Your task to perform on an android device: set the timer Image 0: 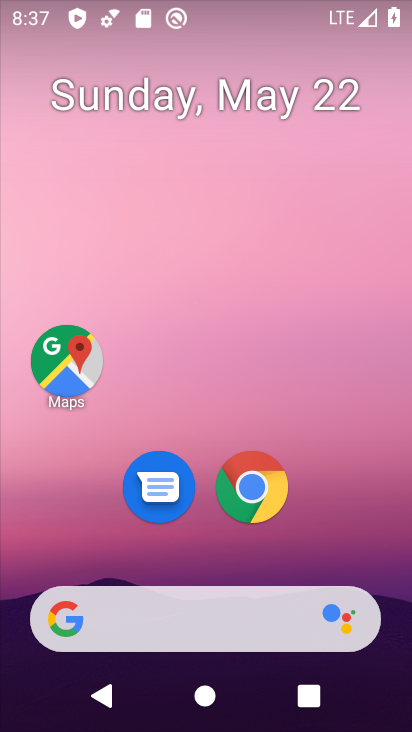
Step 0: drag from (304, 534) to (341, 0)
Your task to perform on an android device: set the timer Image 1: 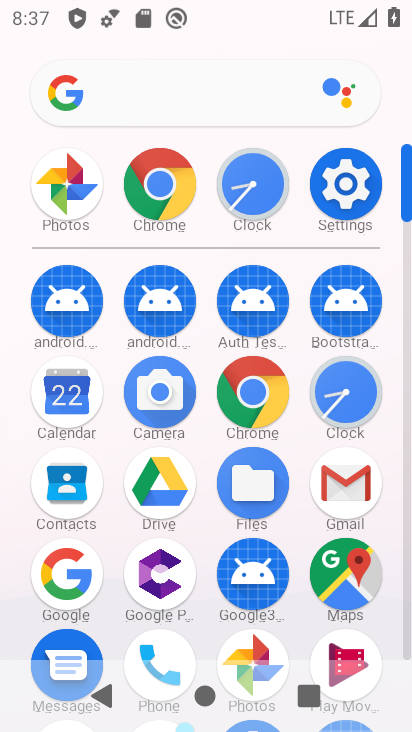
Step 1: click (337, 189)
Your task to perform on an android device: set the timer Image 2: 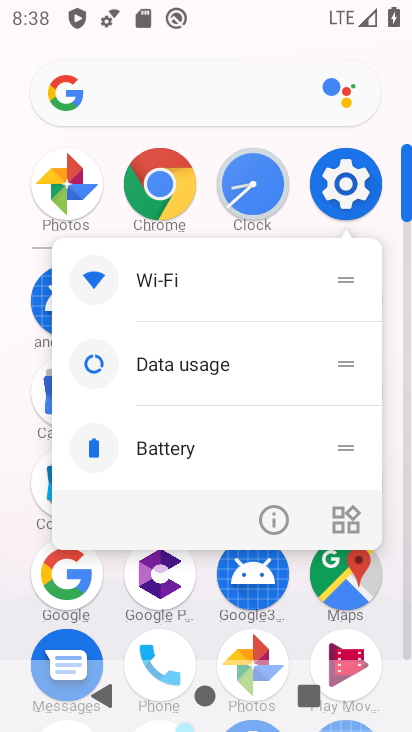
Step 2: click (356, 189)
Your task to perform on an android device: set the timer Image 3: 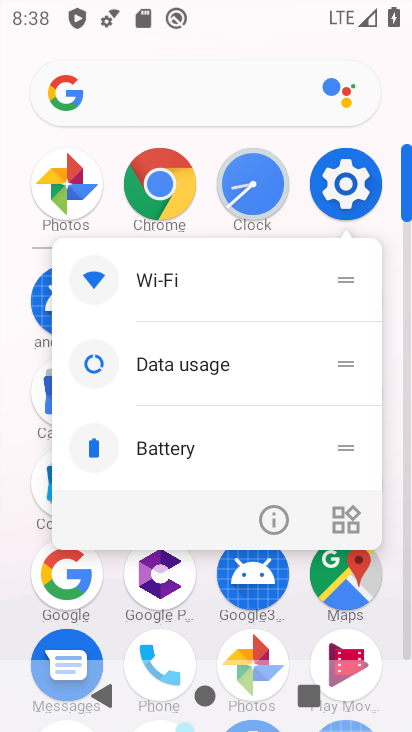
Step 3: click (367, 179)
Your task to perform on an android device: set the timer Image 4: 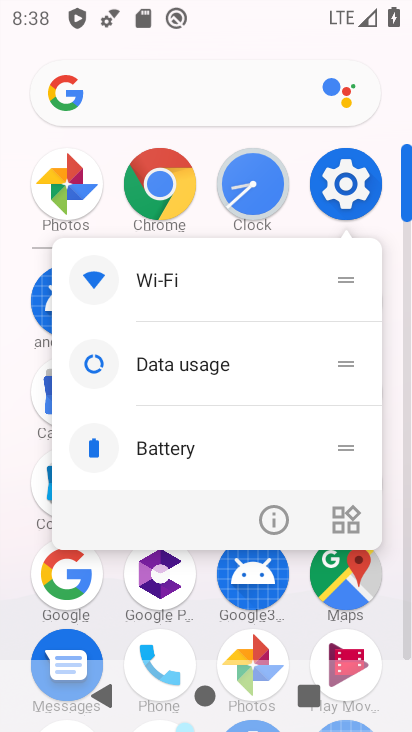
Step 4: click (410, 218)
Your task to perform on an android device: set the timer Image 5: 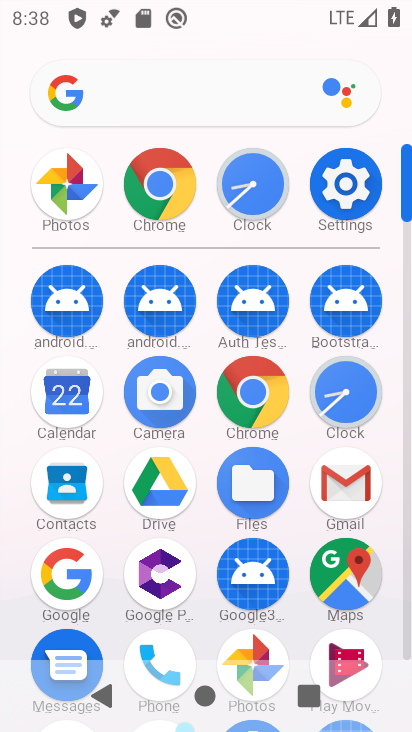
Step 5: click (343, 385)
Your task to perform on an android device: set the timer Image 6: 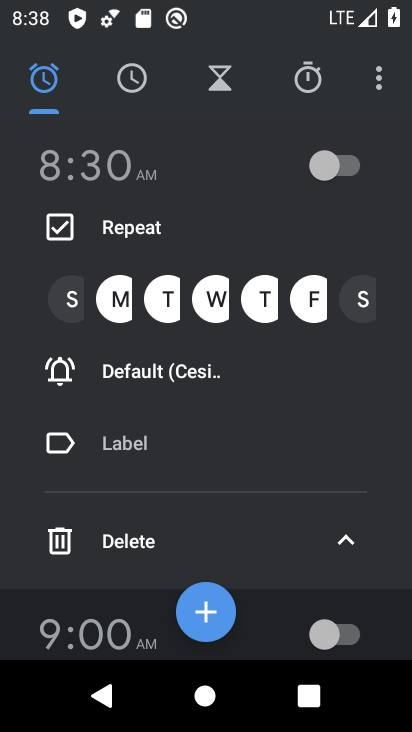
Step 6: click (221, 70)
Your task to perform on an android device: set the timer Image 7: 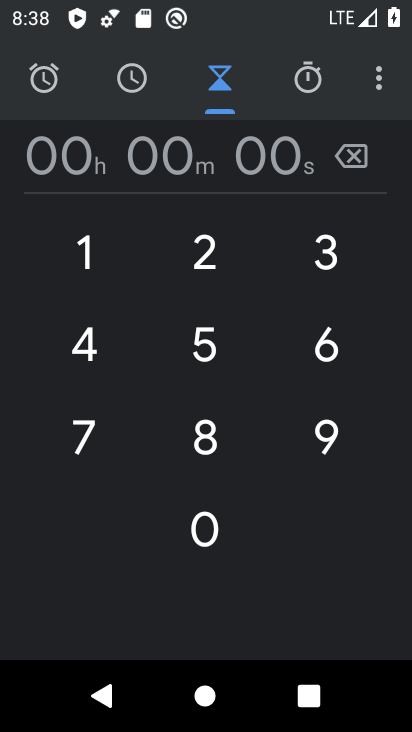
Step 7: click (211, 280)
Your task to perform on an android device: set the timer Image 8: 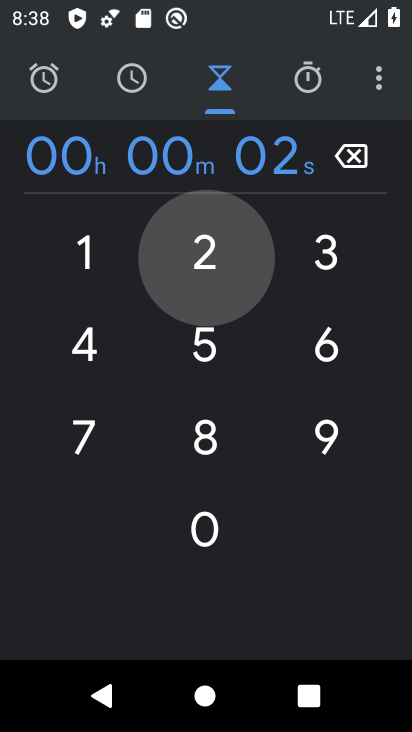
Step 8: click (198, 323)
Your task to perform on an android device: set the timer Image 9: 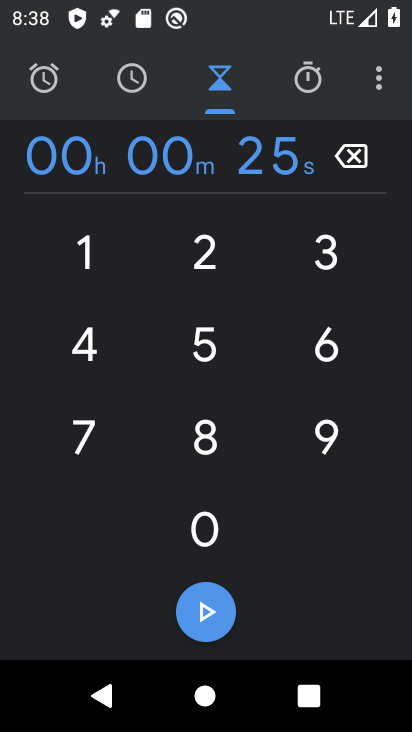
Step 9: click (215, 257)
Your task to perform on an android device: set the timer Image 10: 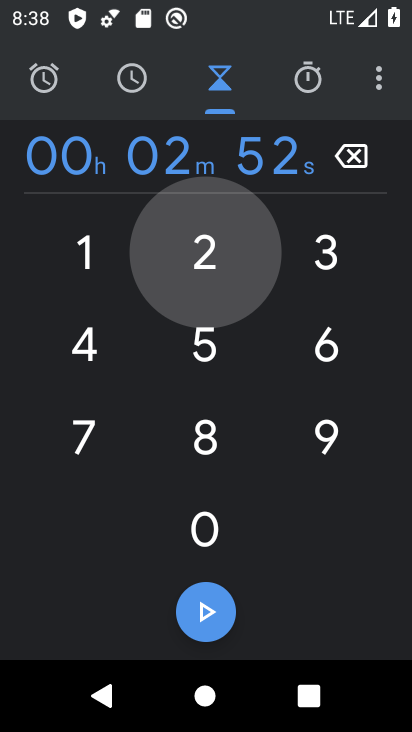
Step 10: click (208, 304)
Your task to perform on an android device: set the timer Image 11: 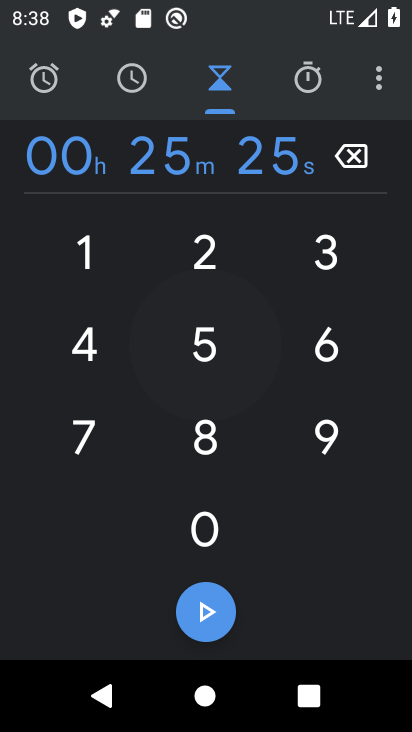
Step 11: click (209, 247)
Your task to perform on an android device: set the timer Image 12: 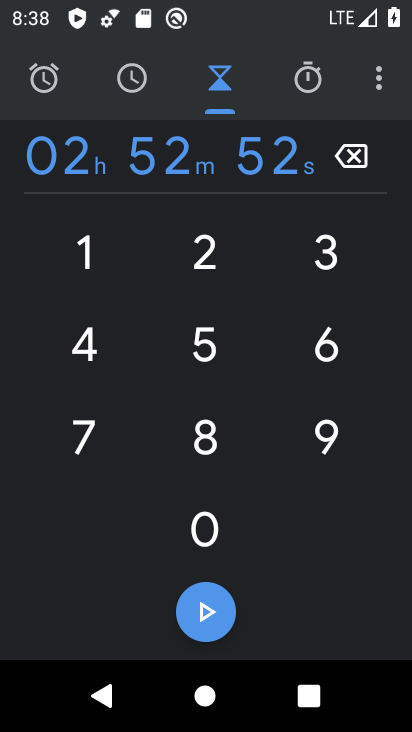
Step 12: click (208, 309)
Your task to perform on an android device: set the timer Image 13: 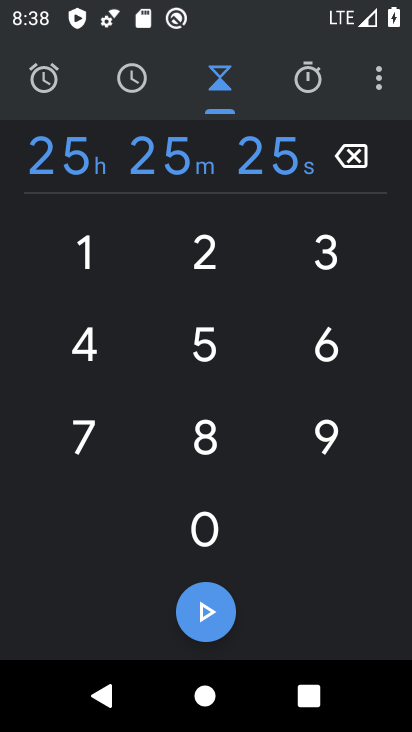
Step 13: click (214, 619)
Your task to perform on an android device: set the timer Image 14: 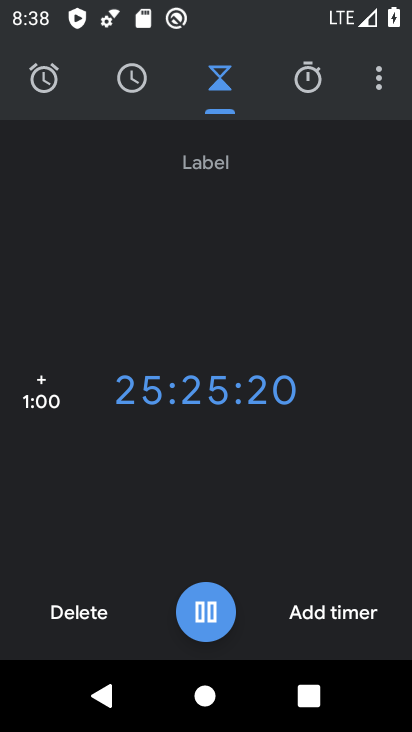
Step 14: task complete